Your task to perform on an android device: Open Chrome and go to the settings page Image 0: 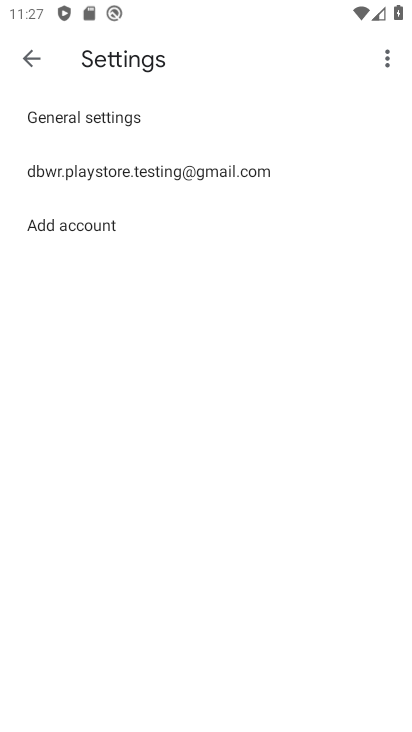
Step 0: press home button
Your task to perform on an android device: Open Chrome and go to the settings page Image 1: 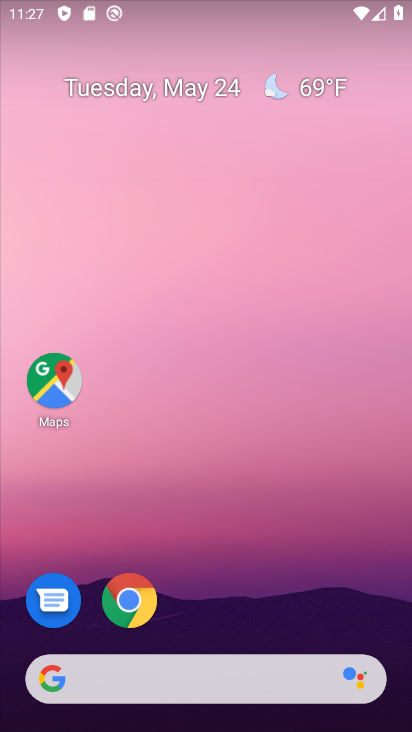
Step 1: drag from (381, 621) to (391, 173)
Your task to perform on an android device: Open Chrome and go to the settings page Image 2: 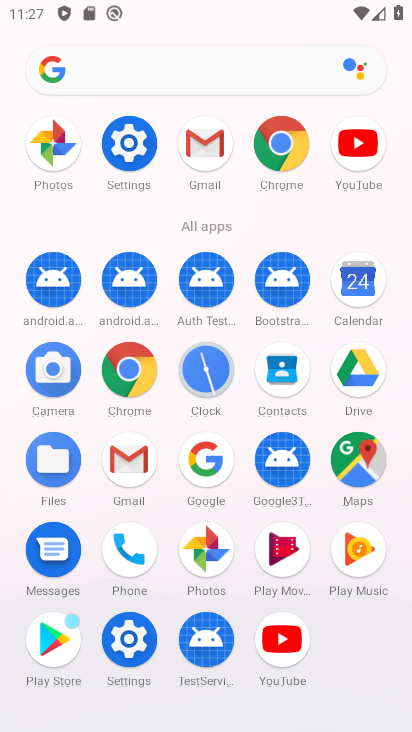
Step 2: click (132, 381)
Your task to perform on an android device: Open Chrome and go to the settings page Image 3: 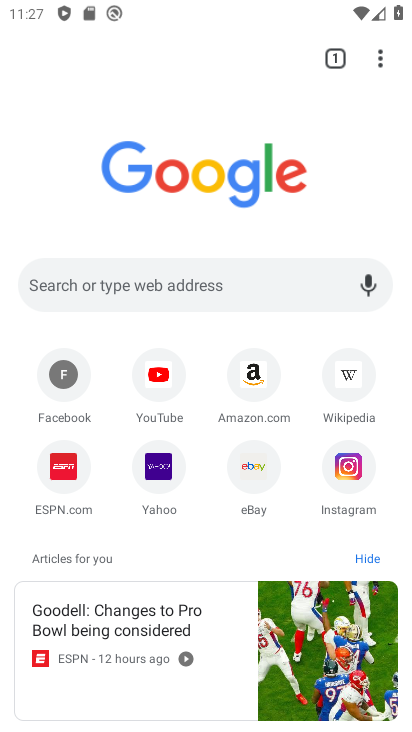
Step 3: click (380, 65)
Your task to perform on an android device: Open Chrome and go to the settings page Image 4: 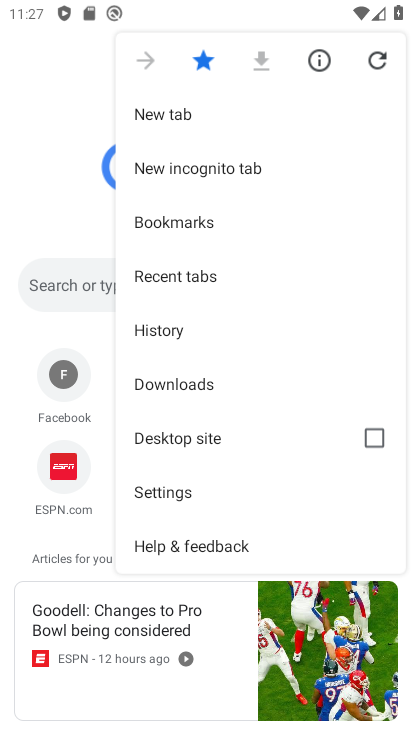
Step 4: click (198, 488)
Your task to perform on an android device: Open Chrome and go to the settings page Image 5: 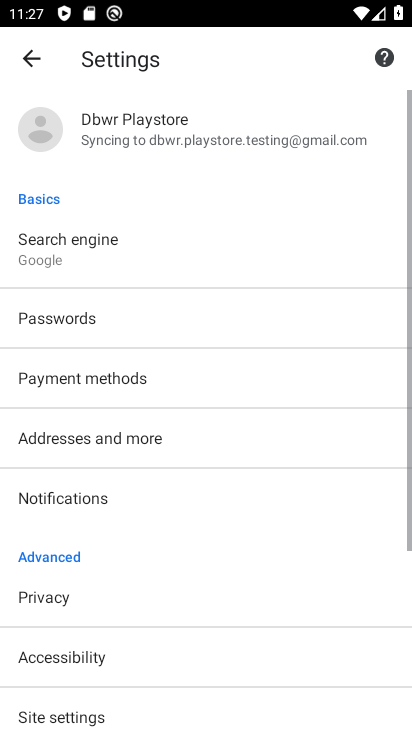
Step 5: task complete